Your task to perform on an android device: turn on showing notifications on the lock screen Image 0: 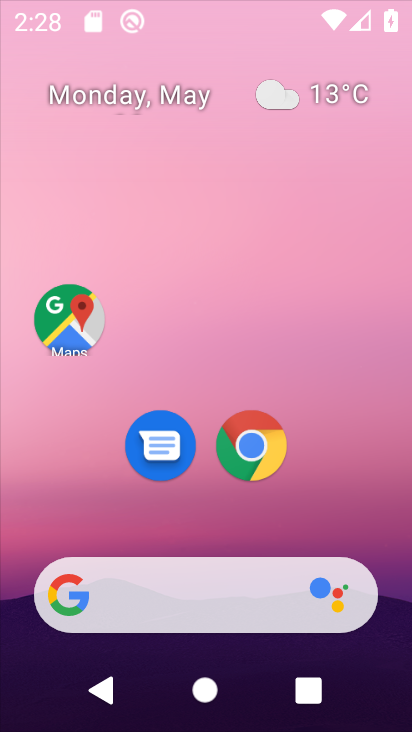
Step 0: click (197, 106)
Your task to perform on an android device: turn on showing notifications on the lock screen Image 1: 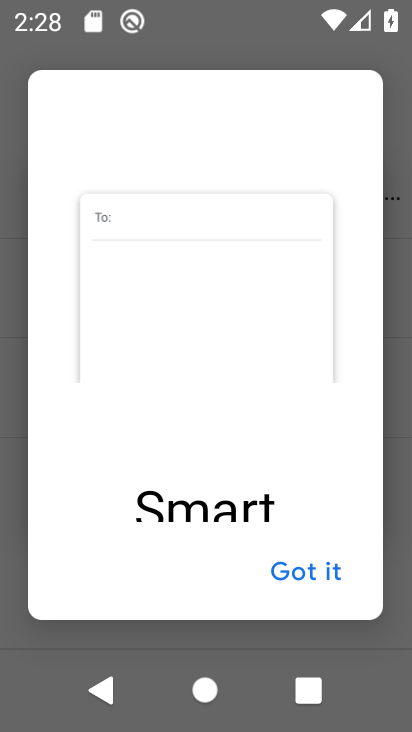
Step 1: press home button
Your task to perform on an android device: turn on showing notifications on the lock screen Image 2: 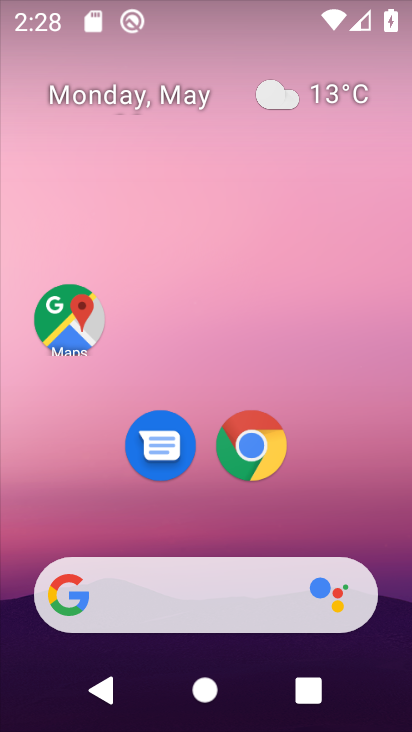
Step 2: drag from (94, 554) to (214, 152)
Your task to perform on an android device: turn on showing notifications on the lock screen Image 3: 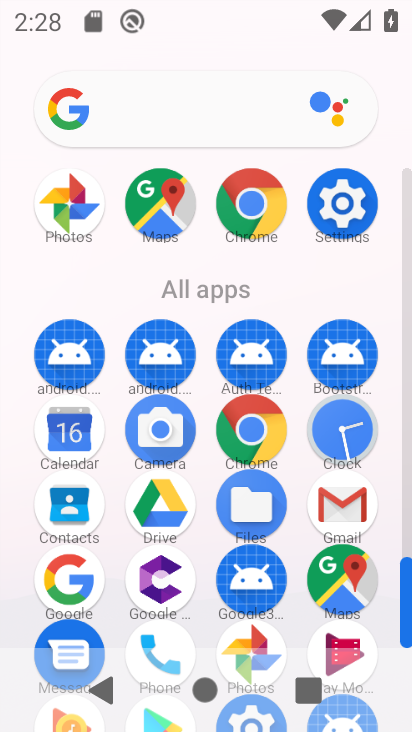
Step 3: drag from (219, 597) to (270, 340)
Your task to perform on an android device: turn on showing notifications on the lock screen Image 4: 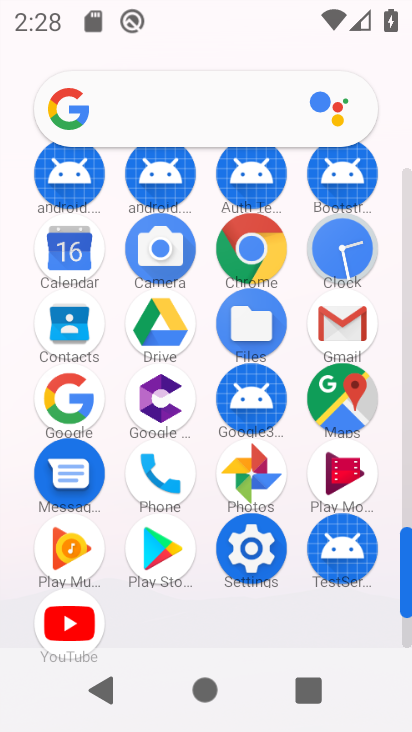
Step 4: click (243, 557)
Your task to perform on an android device: turn on showing notifications on the lock screen Image 5: 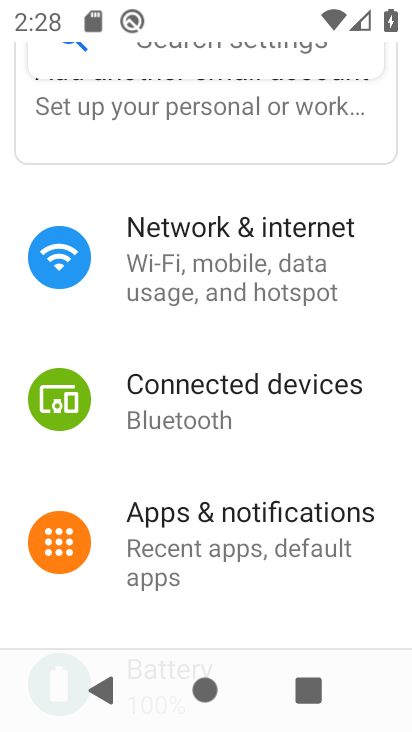
Step 5: drag from (216, 556) to (302, 357)
Your task to perform on an android device: turn on showing notifications on the lock screen Image 6: 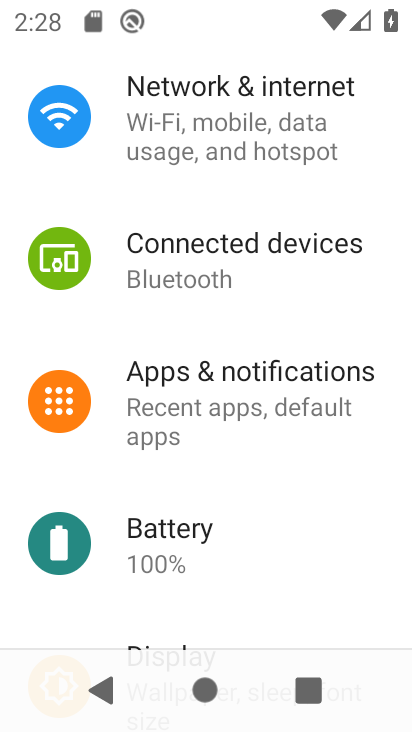
Step 6: click (269, 408)
Your task to perform on an android device: turn on showing notifications on the lock screen Image 7: 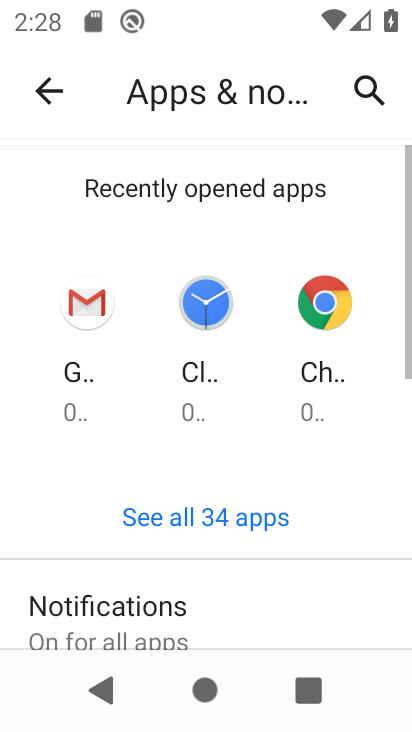
Step 7: drag from (245, 544) to (324, 366)
Your task to perform on an android device: turn on showing notifications on the lock screen Image 8: 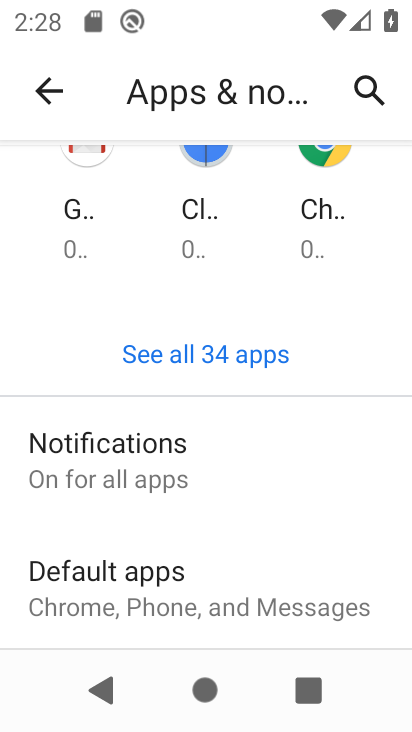
Step 8: click (240, 484)
Your task to perform on an android device: turn on showing notifications on the lock screen Image 9: 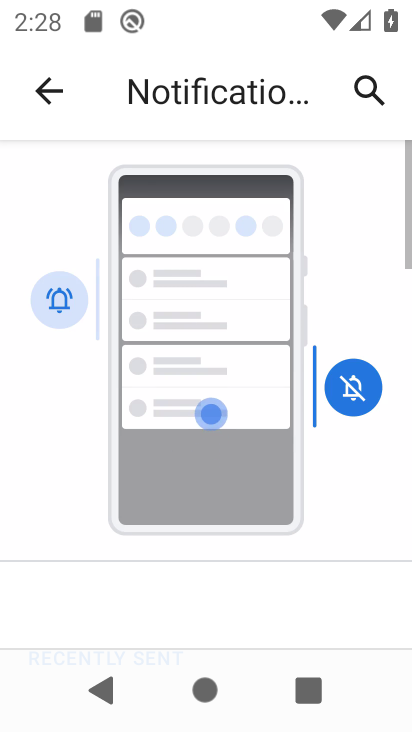
Step 9: drag from (242, 602) to (402, 213)
Your task to perform on an android device: turn on showing notifications on the lock screen Image 10: 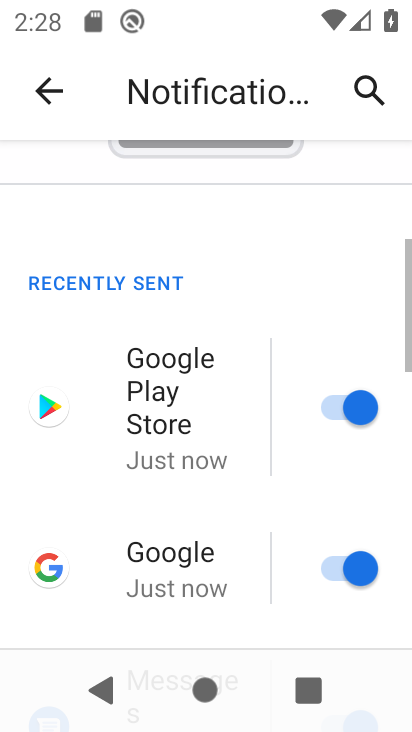
Step 10: drag from (184, 600) to (388, 36)
Your task to perform on an android device: turn on showing notifications on the lock screen Image 11: 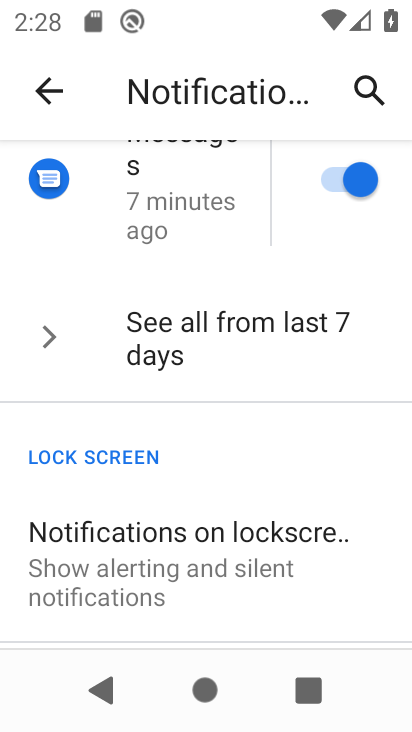
Step 11: click (244, 554)
Your task to perform on an android device: turn on showing notifications on the lock screen Image 12: 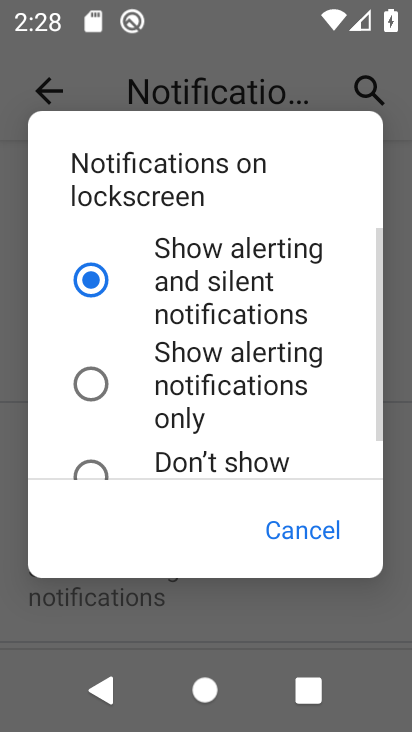
Step 12: task complete